Your task to perform on an android device: turn off location history Image 0: 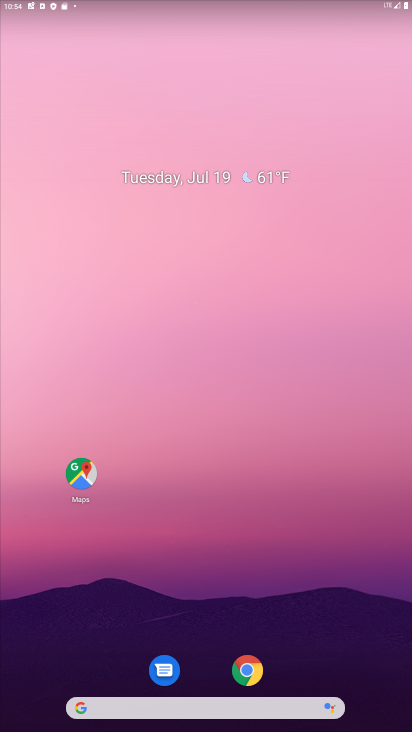
Step 0: drag from (217, 729) to (331, 133)
Your task to perform on an android device: turn off location history Image 1: 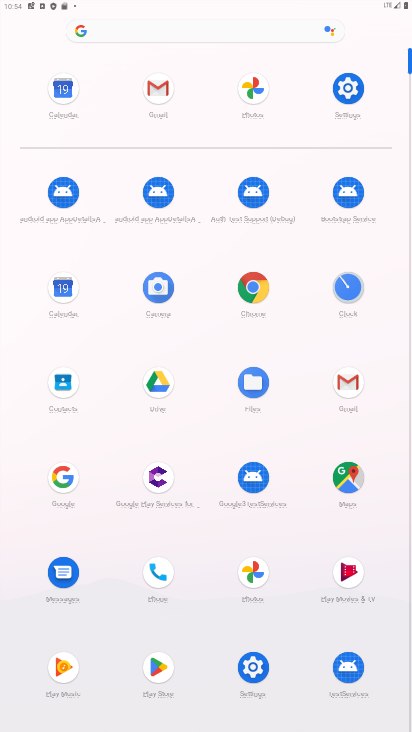
Step 1: click (348, 474)
Your task to perform on an android device: turn off location history Image 2: 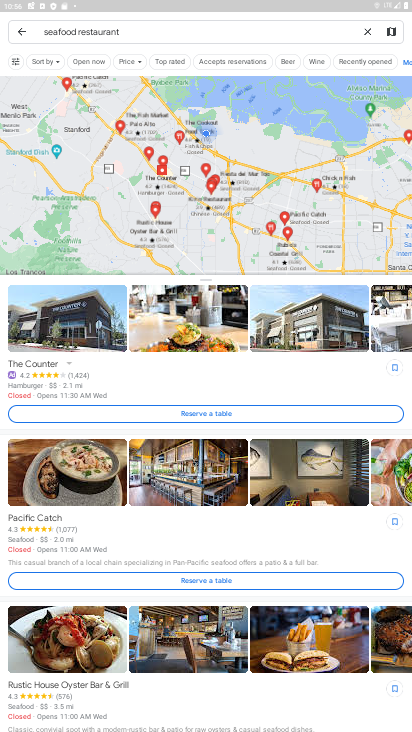
Step 2: click (17, 25)
Your task to perform on an android device: turn off location history Image 3: 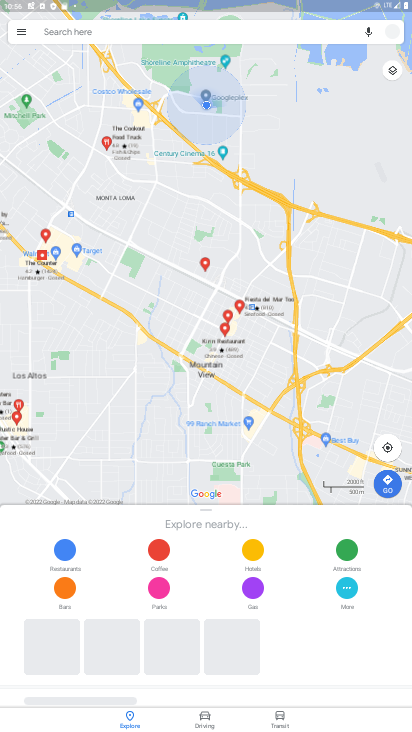
Step 3: click (15, 34)
Your task to perform on an android device: turn off location history Image 4: 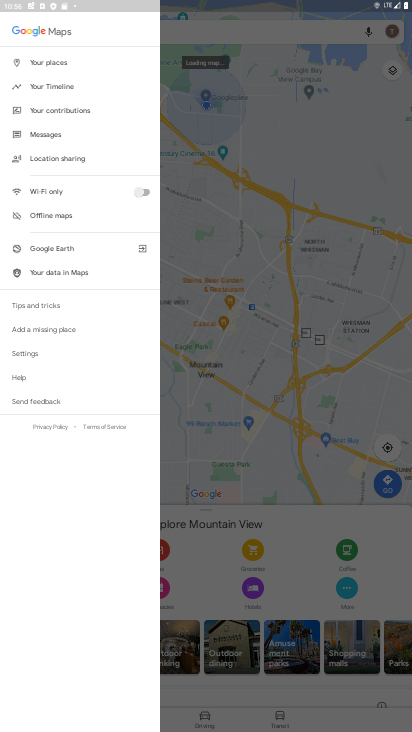
Step 4: click (18, 29)
Your task to perform on an android device: turn off location history Image 5: 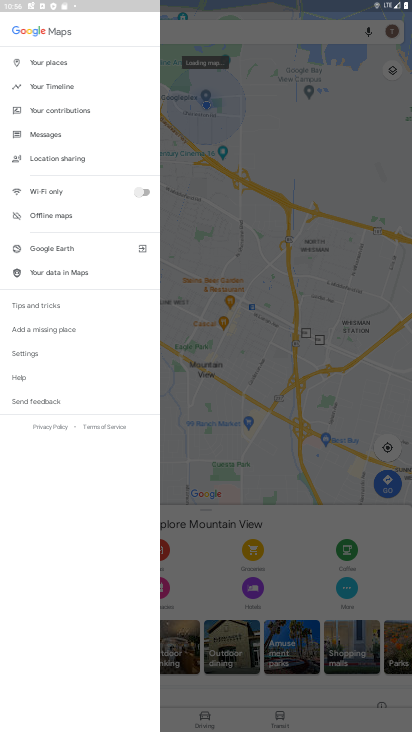
Step 5: click (66, 89)
Your task to perform on an android device: turn off location history Image 6: 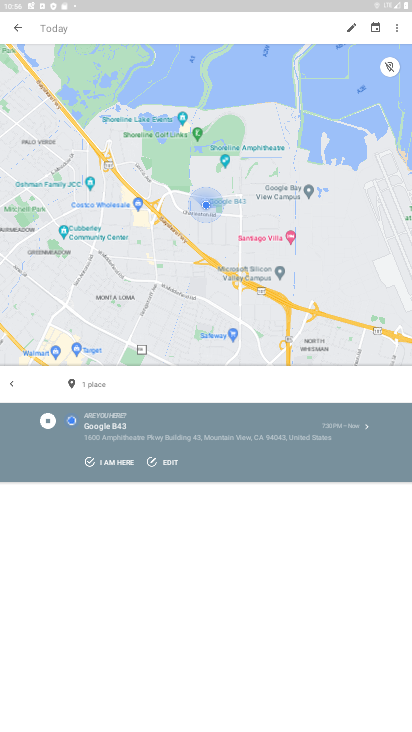
Step 6: click (389, 26)
Your task to perform on an android device: turn off location history Image 7: 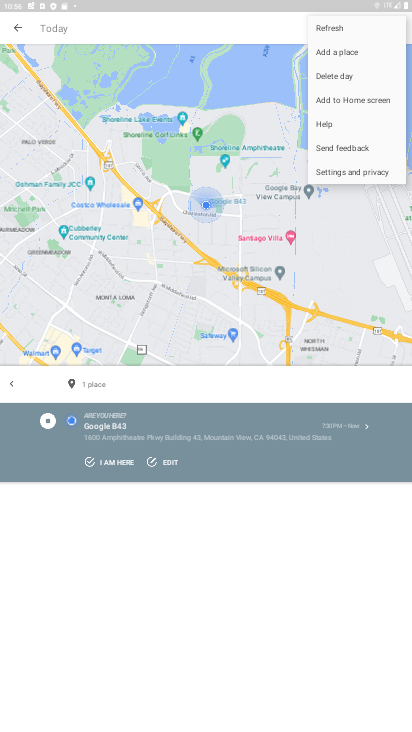
Step 7: click (352, 173)
Your task to perform on an android device: turn off location history Image 8: 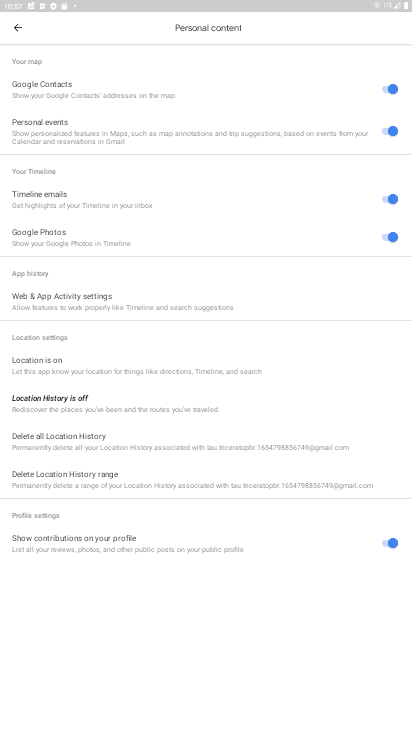
Step 8: click (117, 397)
Your task to perform on an android device: turn off location history Image 9: 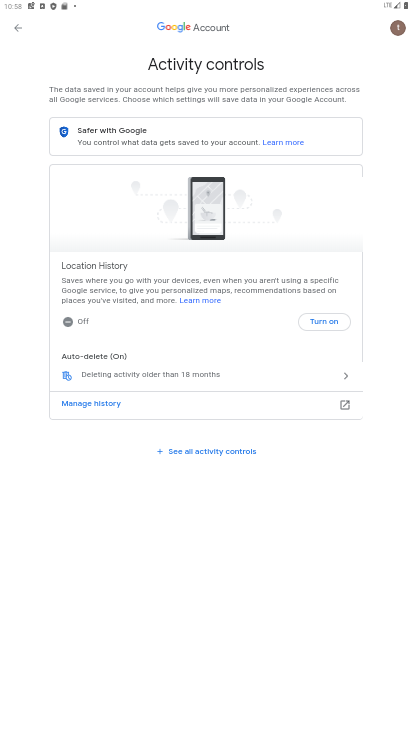
Step 9: task complete